Your task to perform on an android device: Go to battery settings Image 0: 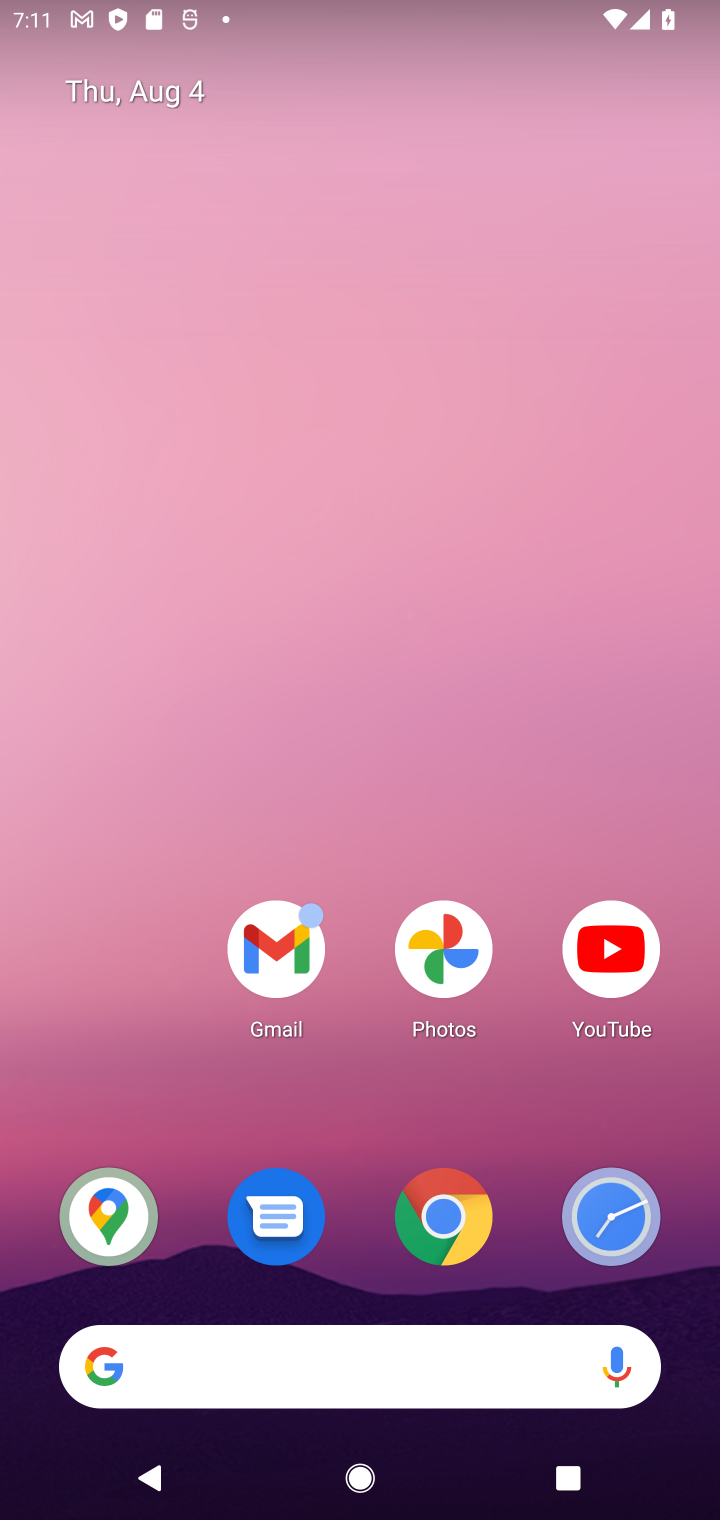
Step 0: drag from (354, 1230) to (306, 56)
Your task to perform on an android device: Go to battery settings Image 1: 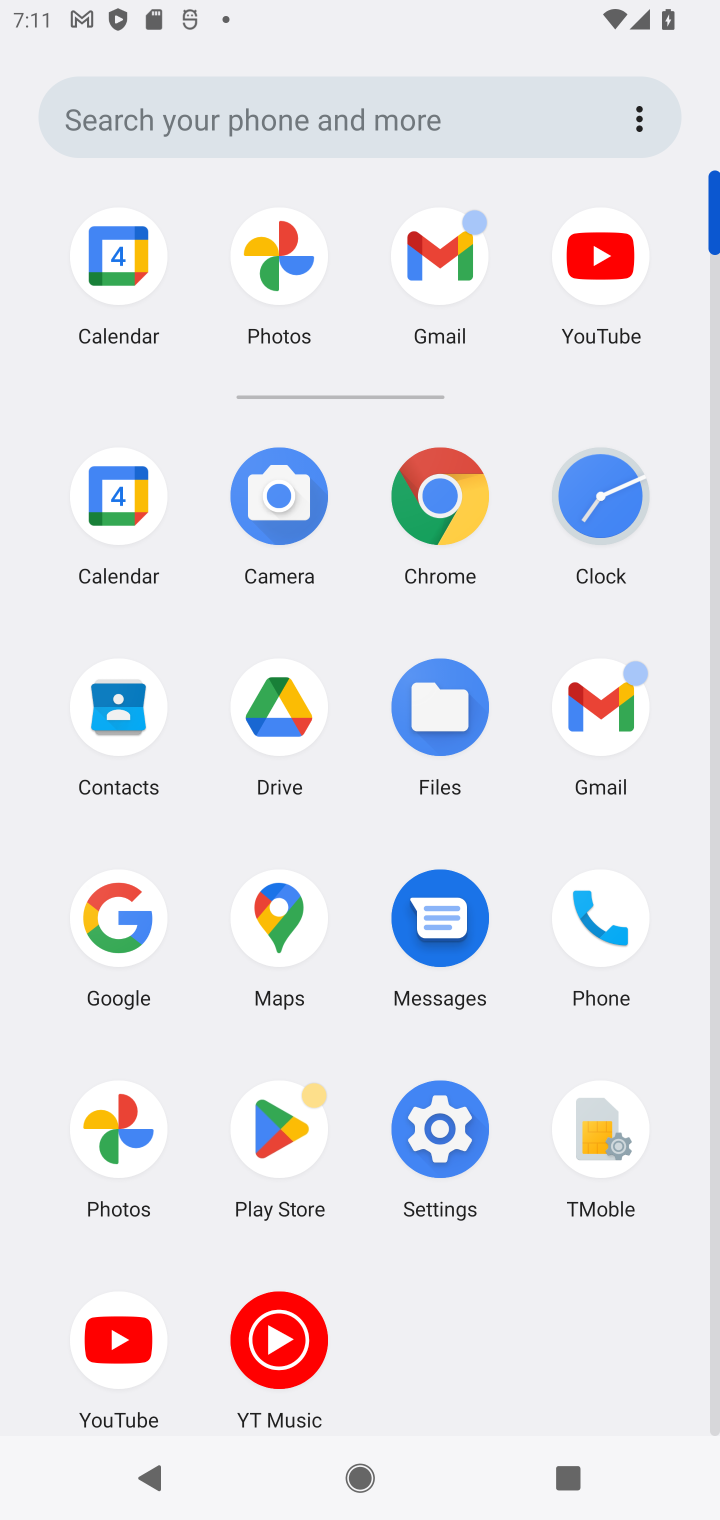
Step 1: click (461, 1115)
Your task to perform on an android device: Go to battery settings Image 2: 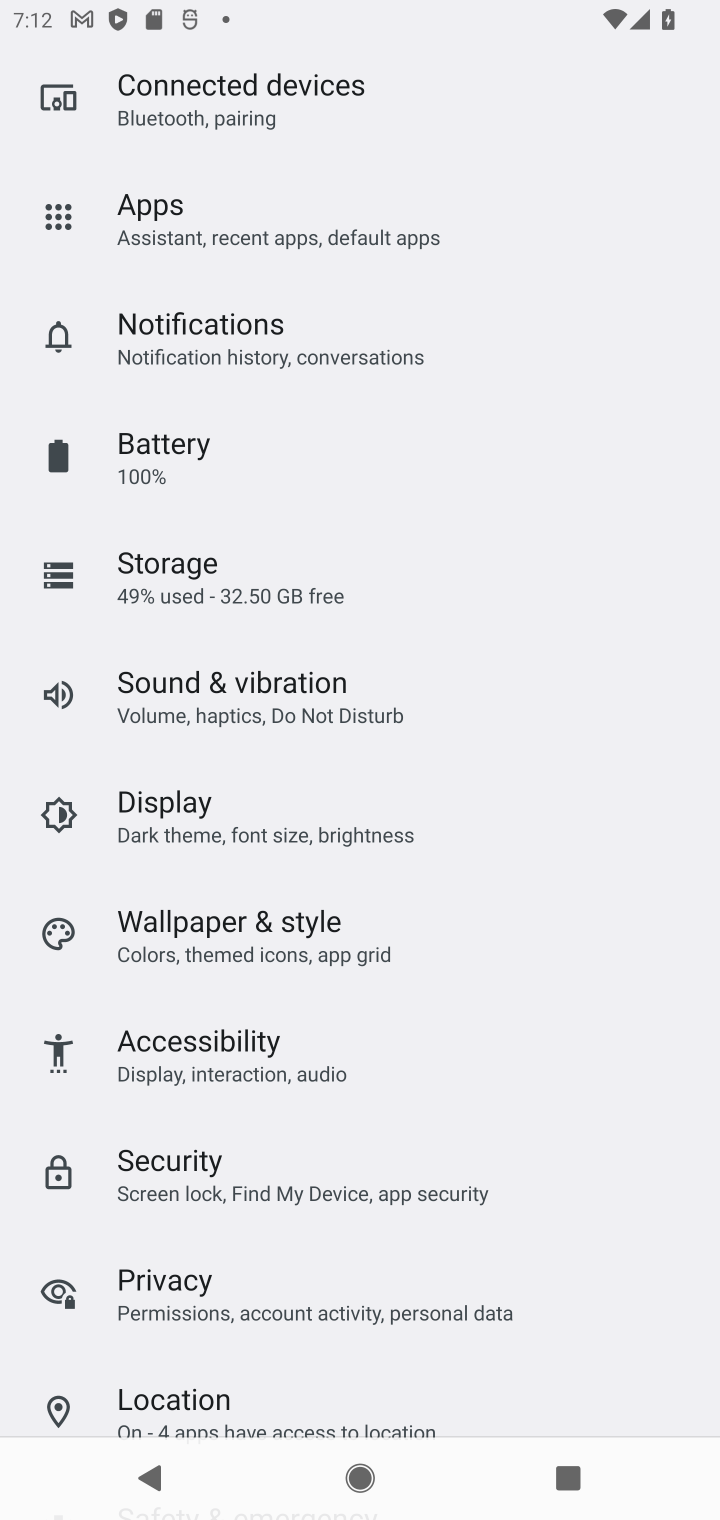
Step 2: click (173, 436)
Your task to perform on an android device: Go to battery settings Image 3: 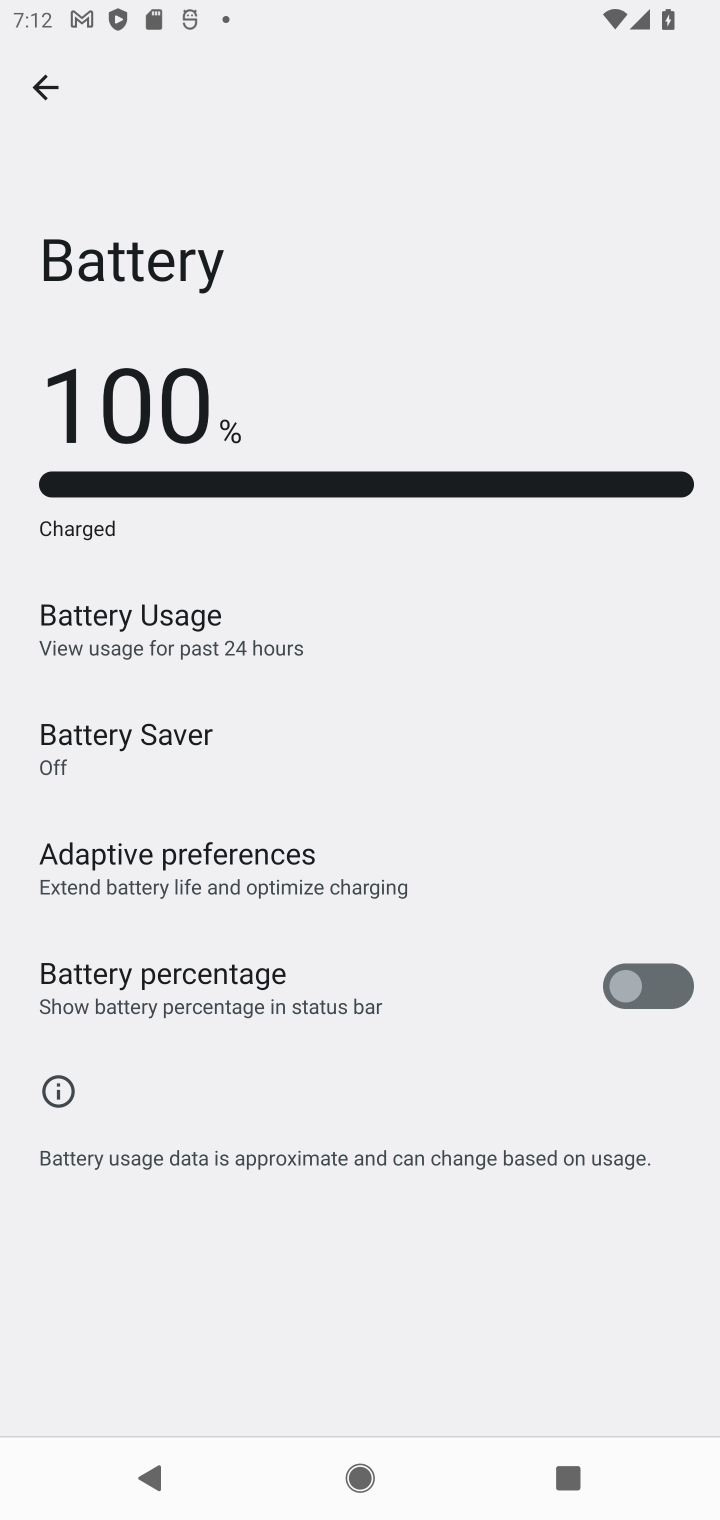
Step 3: task complete